Your task to perform on an android device: turn on translation in the chrome app Image 0: 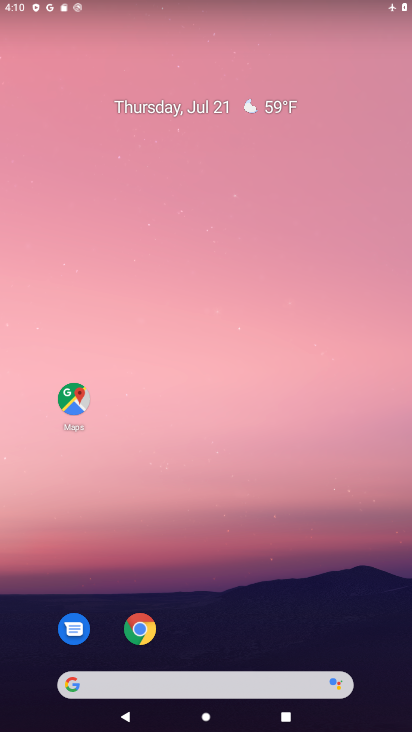
Step 0: click (138, 635)
Your task to perform on an android device: turn on translation in the chrome app Image 1: 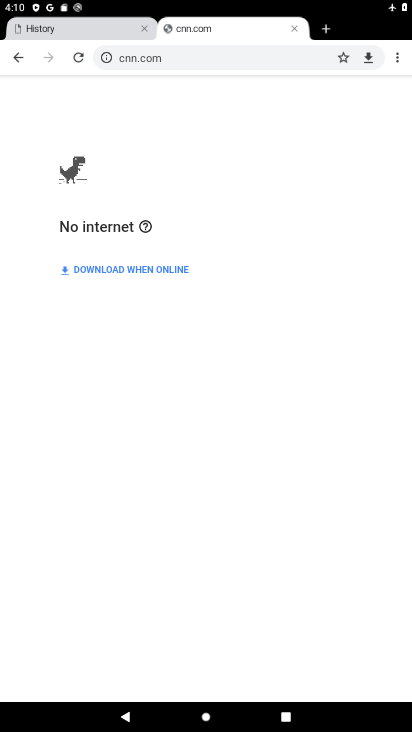
Step 1: click (400, 52)
Your task to perform on an android device: turn on translation in the chrome app Image 2: 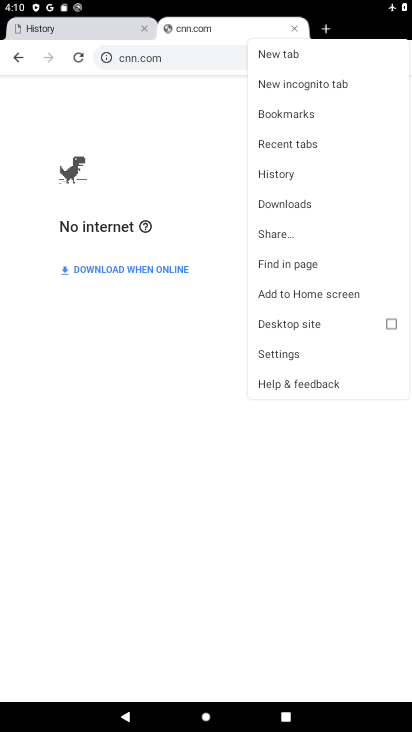
Step 2: click (289, 353)
Your task to perform on an android device: turn on translation in the chrome app Image 3: 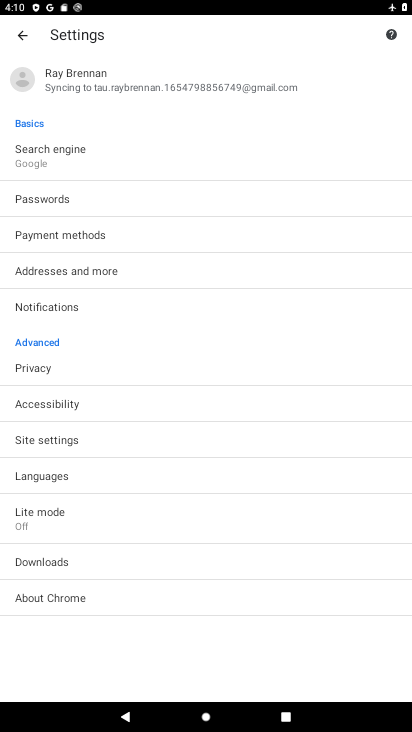
Step 3: click (53, 475)
Your task to perform on an android device: turn on translation in the chrome app Image 4: 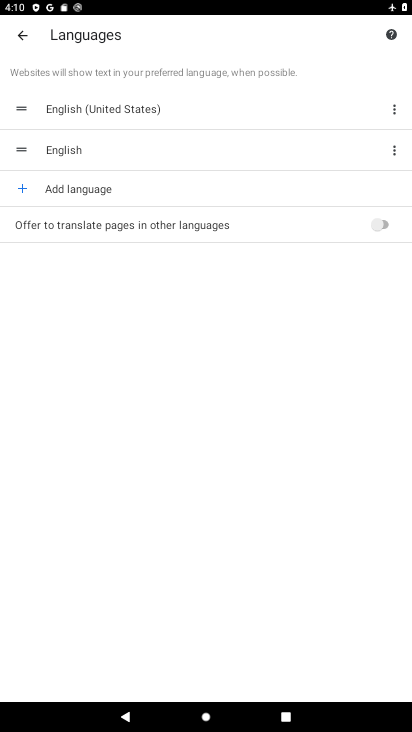
Step 4: click (381, 220)
Your task to perform on an android device: turn on translation in the chrome app Image 5: 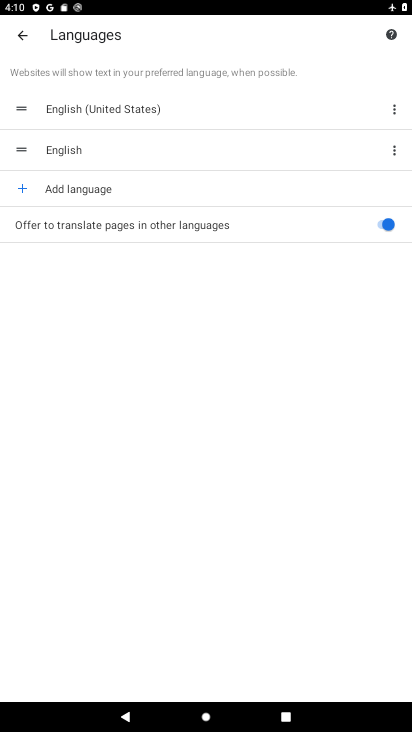
Step 5: task complete